Your task to perform on an android device: Do I have any events today? Image 0: 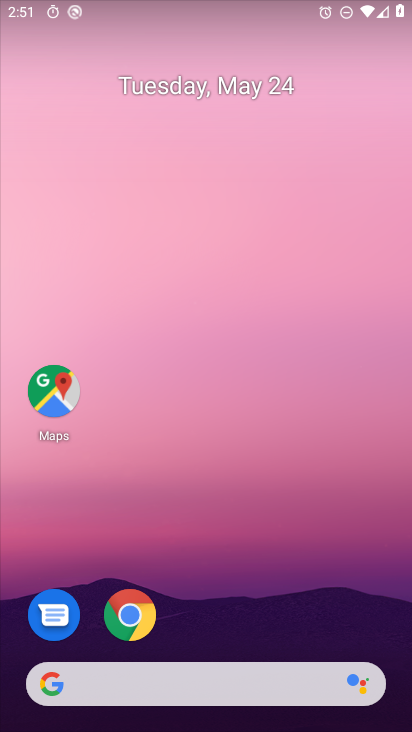
Step 0: drag from (262, 662) to (261, 342)
Your task to perform on an android device: Do I have any events today? Image 1: 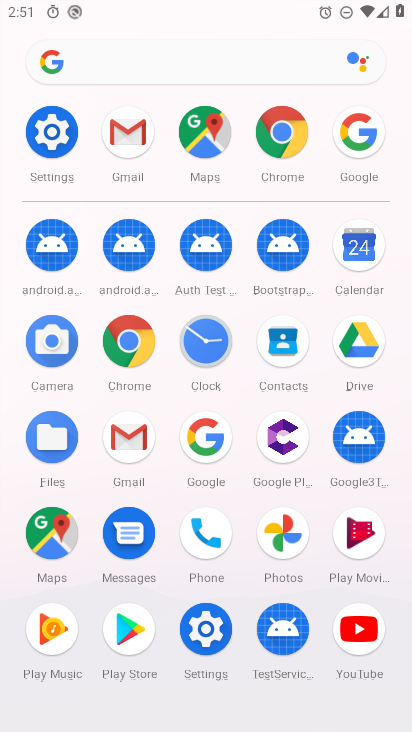
Step 1: click (353, 252)
Your task to perform on an android device: Do I have any events today? Image 2: 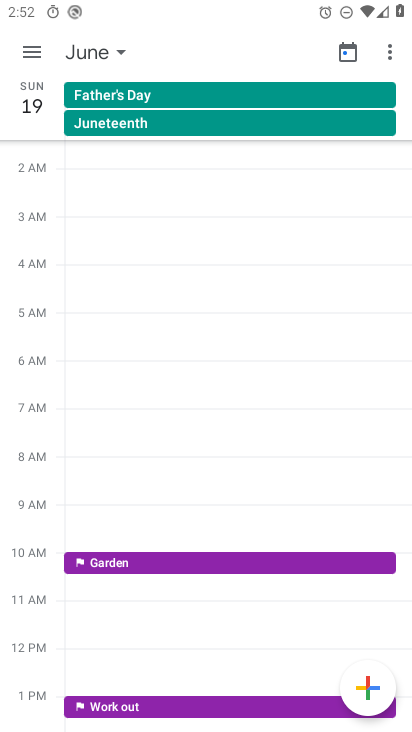
Step 2: click (96, 45)
Your task to perform on an android device: Do I have any events today? Image 3: 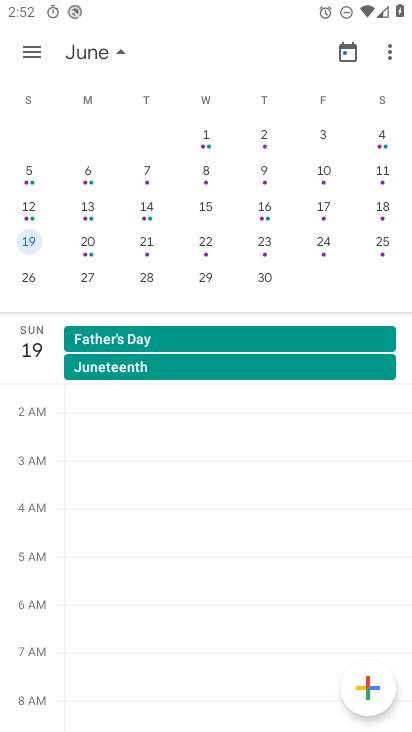
Step 3: drag from (102, 182) to (358, 183)
Your task to perform on an android device: Do I have any events today? Image 4: 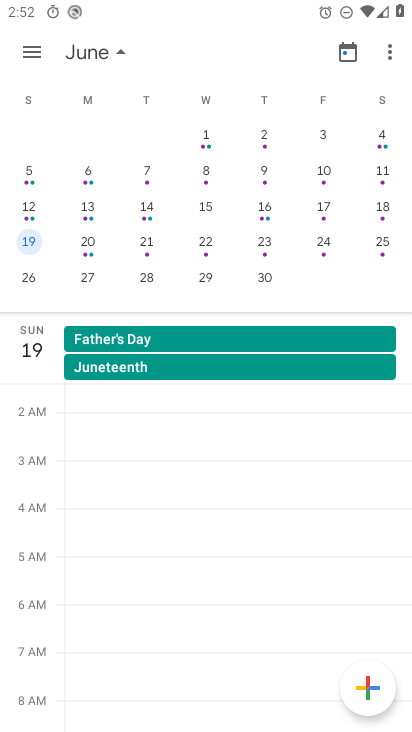
Step 4: drag from (84, 247) to (352, 241)
Your task to perform on an android device: Do I have any events today? Image 5: 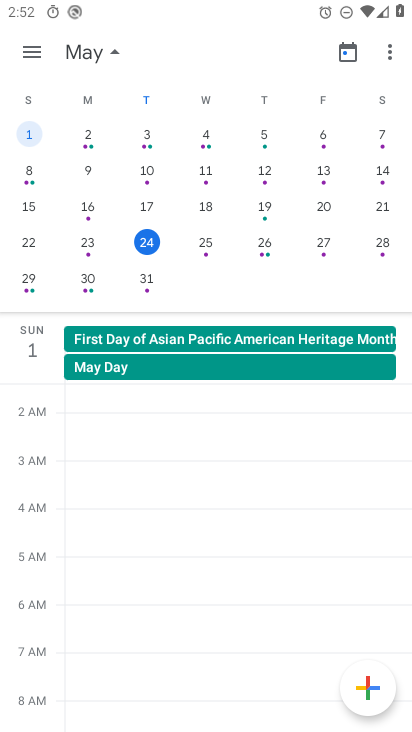
Step 5: click (149, 242)
Your task to perform on an android device: Do I have any events today? Image 6: 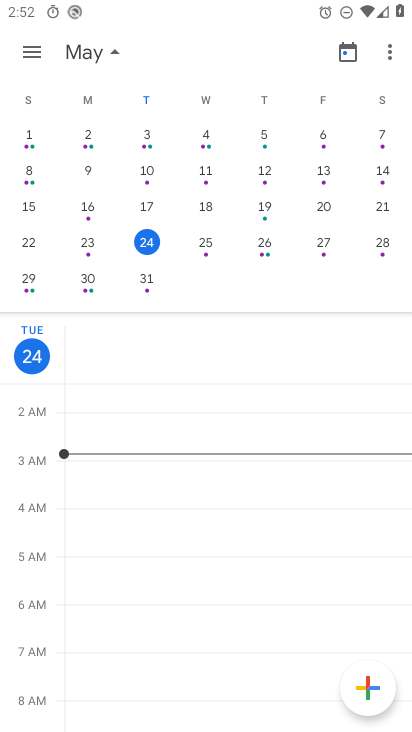
Step 6: task complete